Your task to perform on an android device: Open the map Image 0: 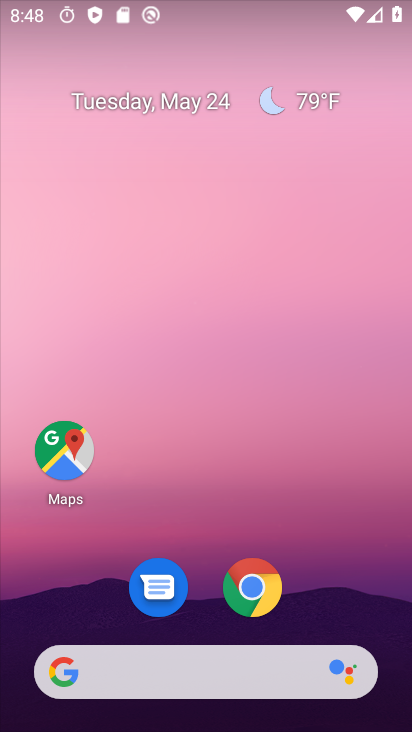
Step 0: click (65, 450)
Your task to perform on an android device: Open the map Image 1: 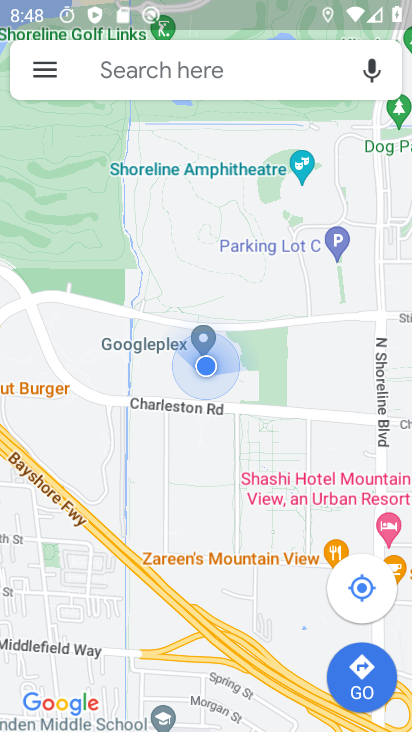
Step 1: task complete